Your task to perform on an android device: add a contact Image 0: 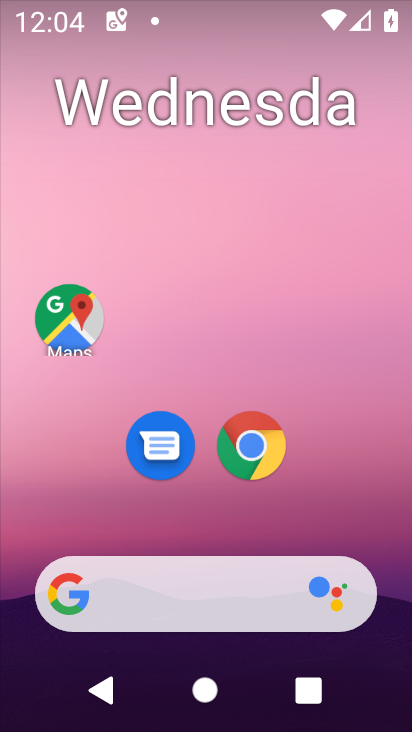
Step 0: drag from (242, 701) to (239, 270)
Your task to perform on an android device: add a contact Image 1: 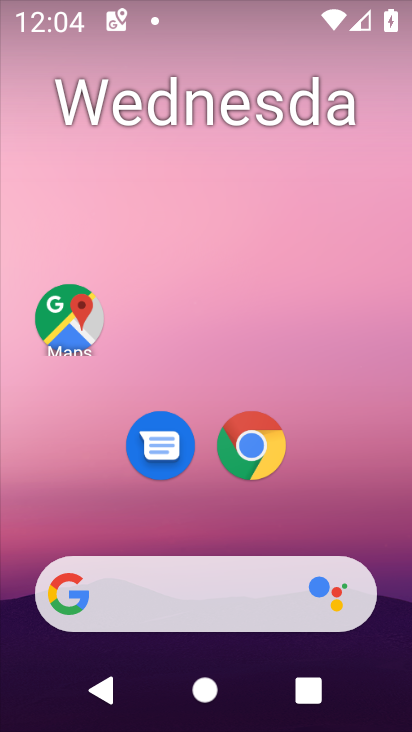
Step 1: drag from (246, 704) to (250, 67)
Your task to perform on an android device: add a contact Image 2: 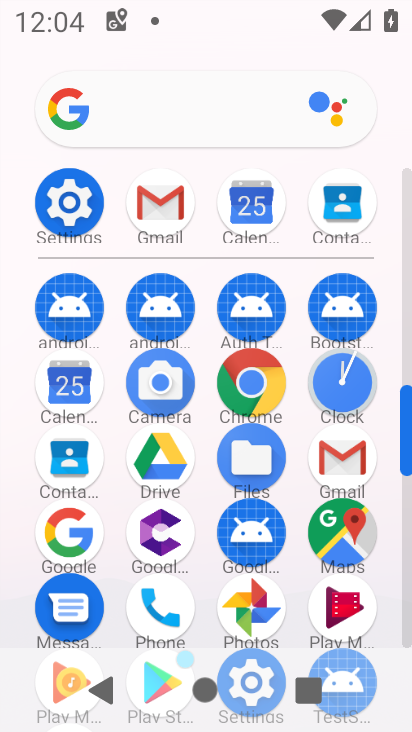
Step 2: click (66, 466)
Your task to perform on an android device: add a contact Image 3: 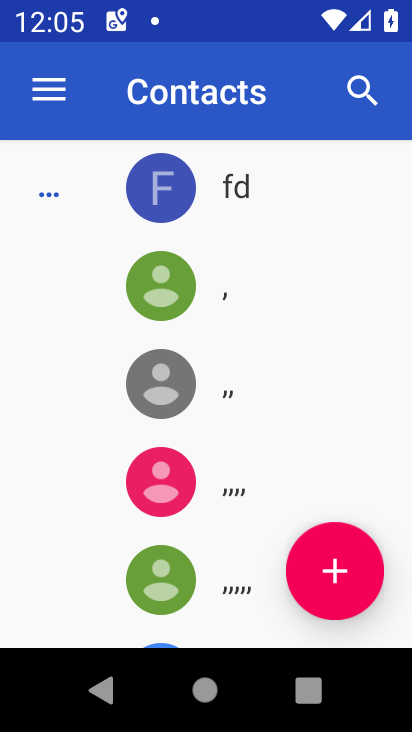
Step 3: click (337, 565)
Your task to perform on an android device: add a contact Image 4: 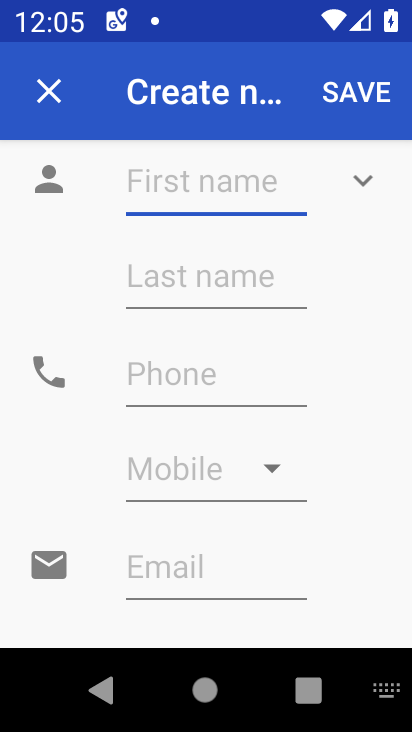
Step 4: type "ashothhanma"
Your task to perform on an android device: add a contact Image 5: 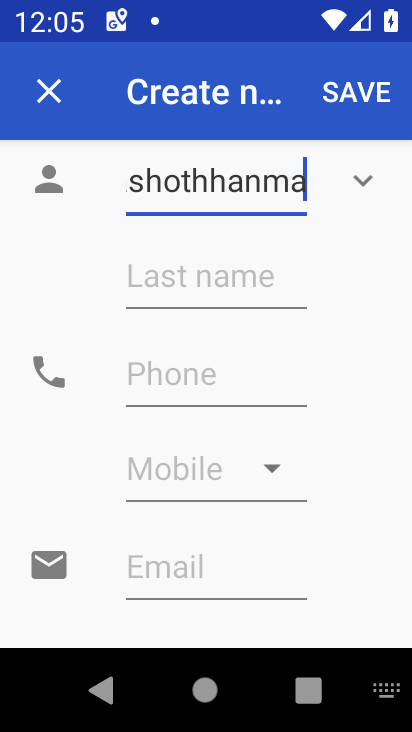
Step 5: click (182, 365)
Your task to perform on an android device: add a contact Image 6: 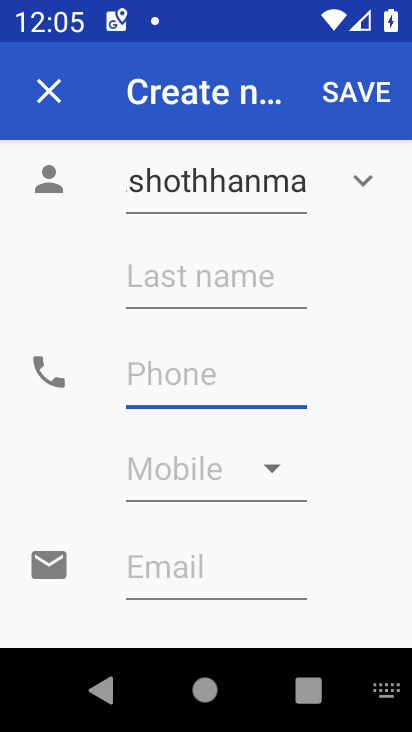
Step 6: type "7878787878"
Your task to perform on an android device: add a contact Image 7: 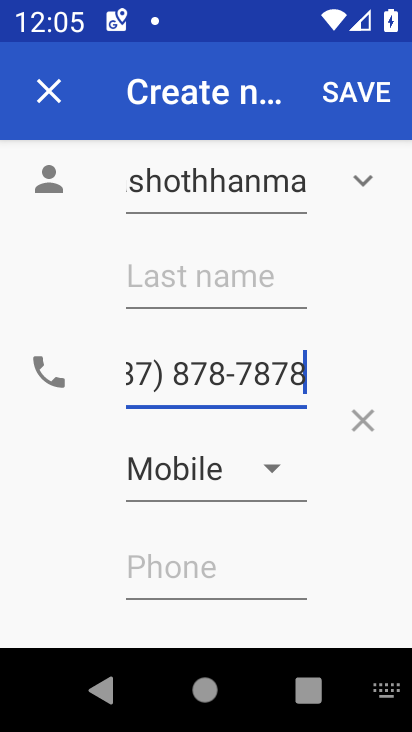
Step 7: click (342, 91)
Your task to perform on an android device: add a contact Image 8: 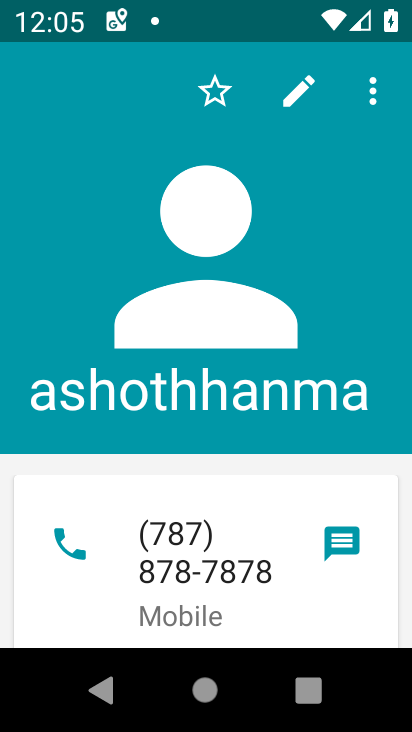
Step 8: task complete